Your task to perform on an android device: What is the recent news? Image 0: 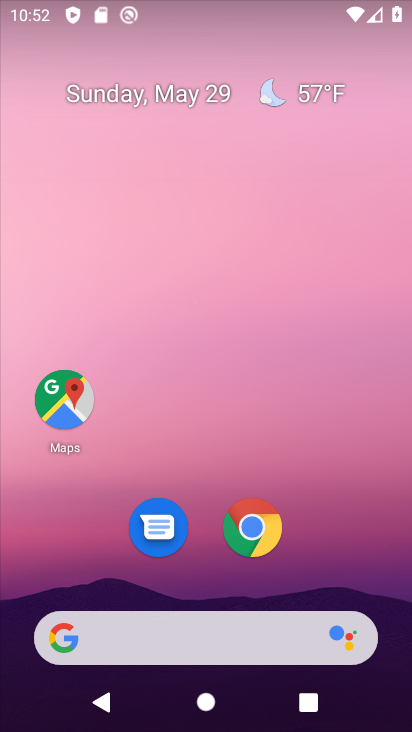
Step 0: click (234, 635)
Your task to perform on an android device: What is the recent news? Image 1: 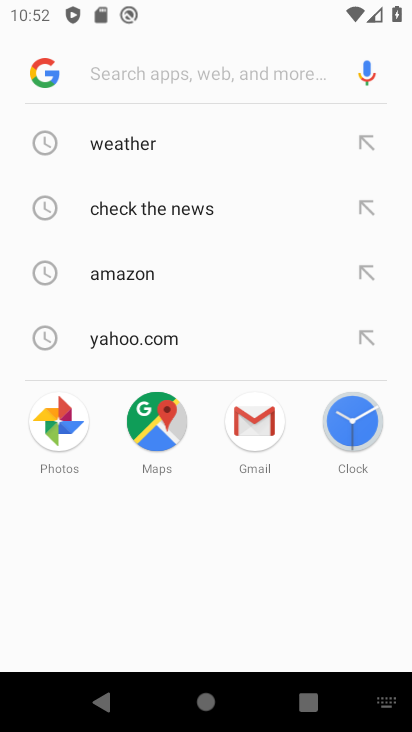
Step 1: type "recent news"
Your task to perform on an android device: What is the recent news? Image 2: 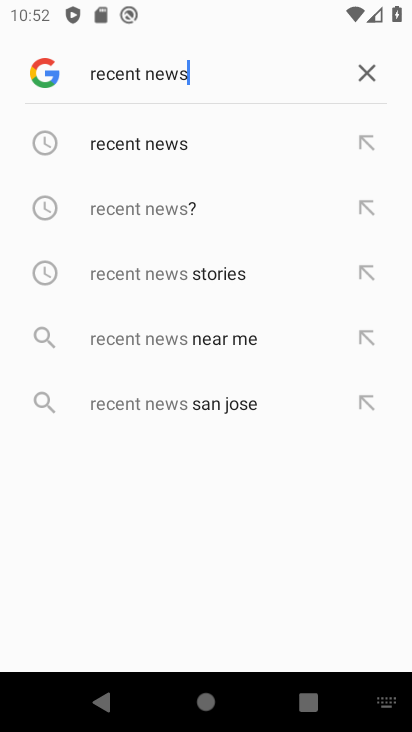
Step 2: click (182, 142)
Your task to perform on an android device: What is the recent news? Image 3: 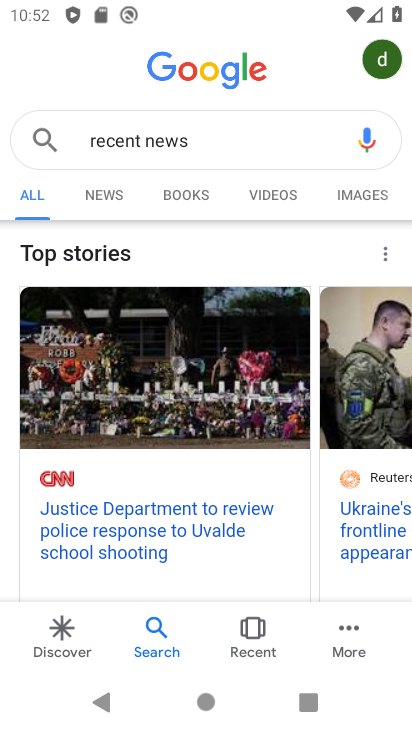
Step 3: task complete